Your task to perform on an android device: turn off smart reply in the gmail app Image 0: 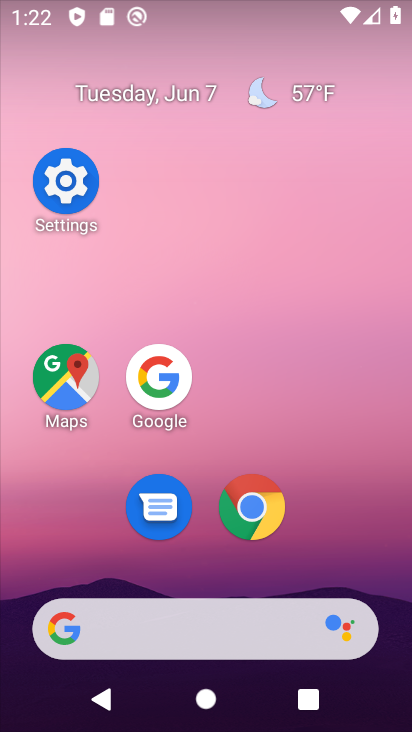
Step 0: drag from (326, 399) to (309, 92)
Your task to perform on an android device: turn off smart reply in the gmail app Image 1: 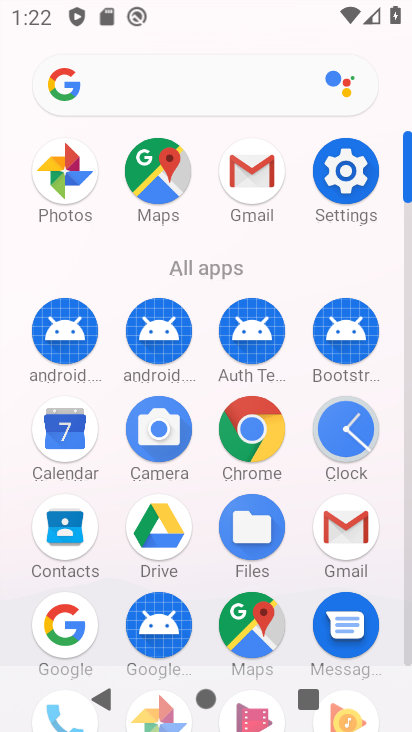
Step 1: drag from (257, 165) to (226, 389)
Your task to perform on an android device: turn off smart reply in the gmail app Image 2: 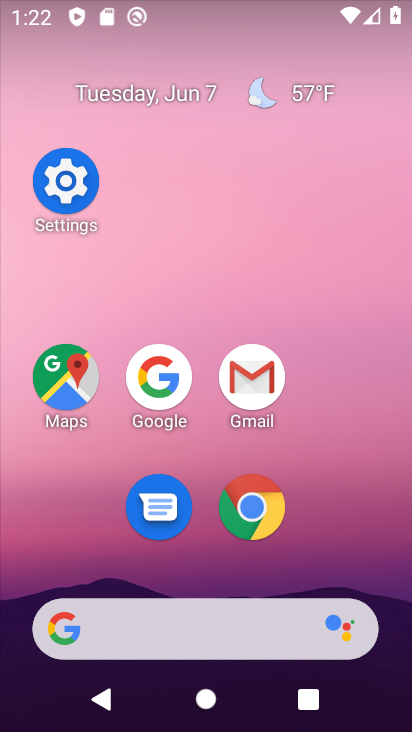
Step 2: click (240, 362)
Your task to perform on an android device: turn off smart reply in the gmail app Image 3: 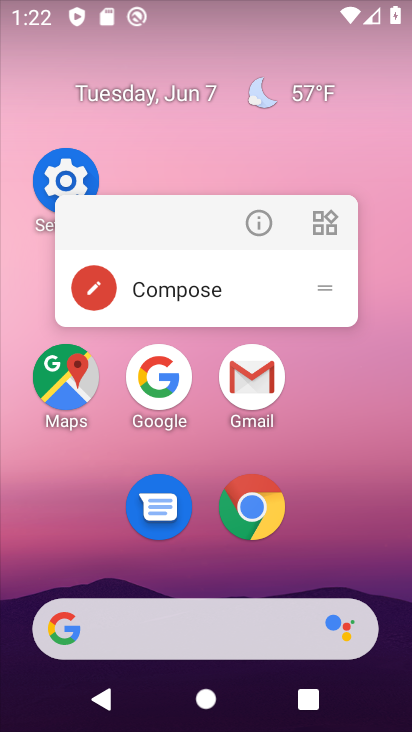
Step 3: click (243, 368)
Your task to perform on an android device: turn off smart reply in the gmail app Image 4: 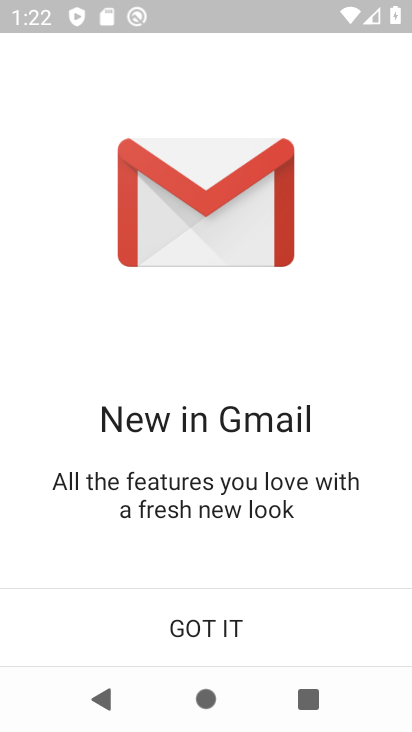
Step 4: click (218, 591)
Your task to perform on an android device: turn off smart reply in the gmail app Image 5: 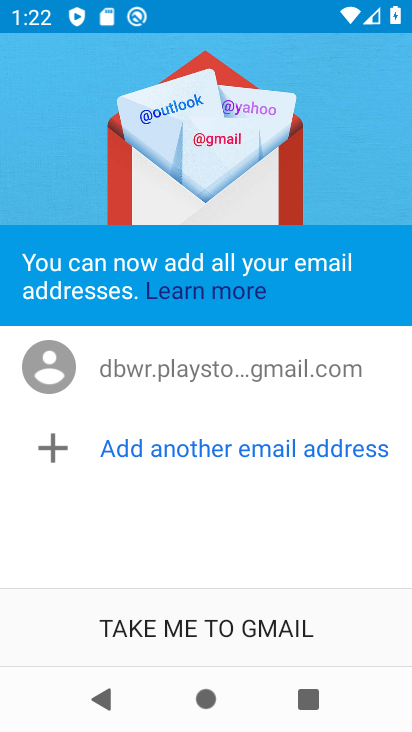
Step 5: click (214, 632)
Your task to perform on an android device: turn off smart reply in the gmail app Image 6: 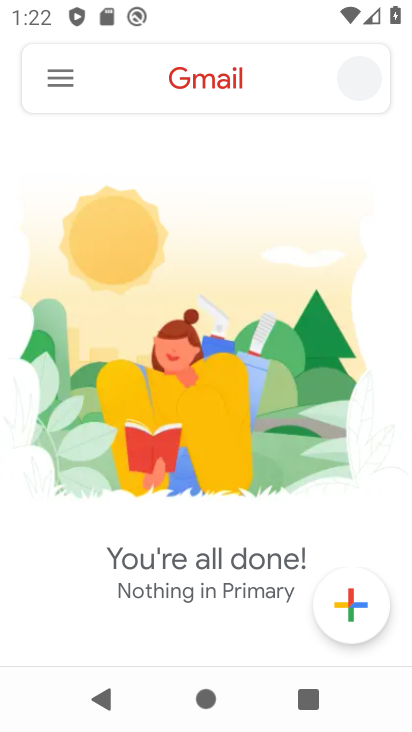
Step 6: click (61, 84)
Your task to perform on an android device: turn off smart reply in the gmail app Image 7: 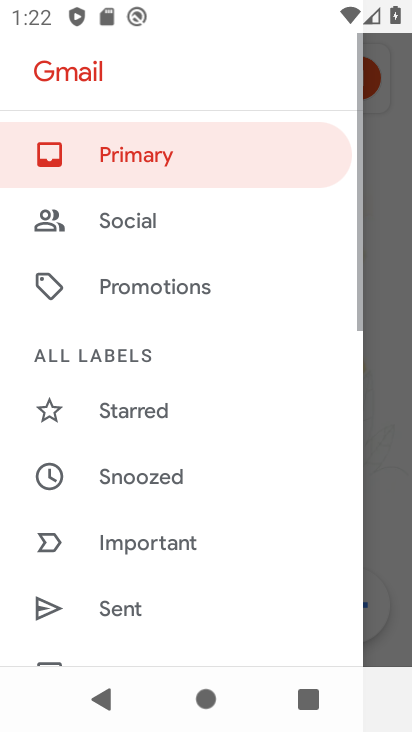
Step 7: click (147, 360)
Your task to perform on an android device: turn off smart reply in the gmail app Image 8: 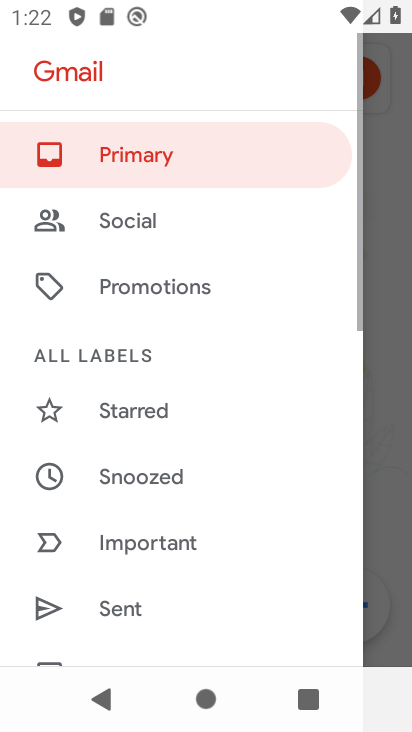
Step 8: drag from (222, 221) to (212, 177)
Your task to perform on an android device: turn off smart reply in the gmail app Image 9: 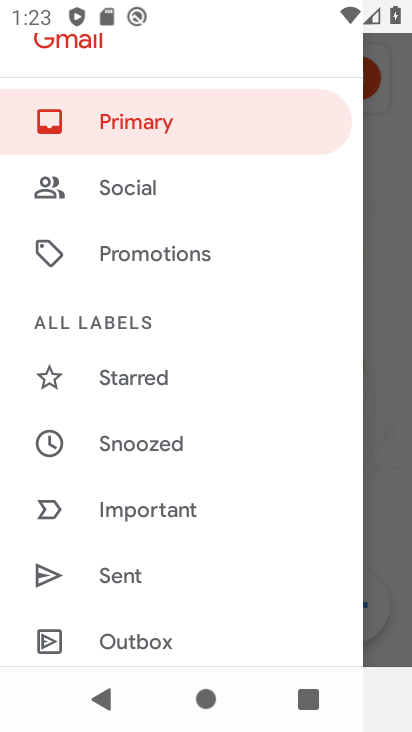
Step 9: drag from (209, 552) to (242, 170)
Your task to perform on an android device: turn off smart reply in the gmail app Image 10: 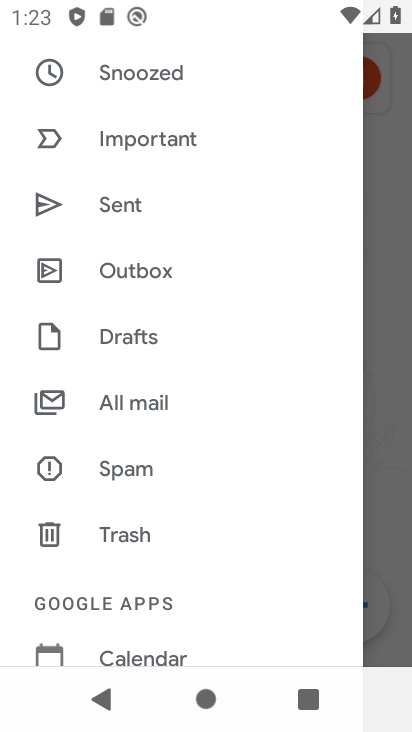
Step 10: drag from (177, 557) to (219, 203)
Your task to perform on an android device: turn off smart reply in the gmail app Image 11: 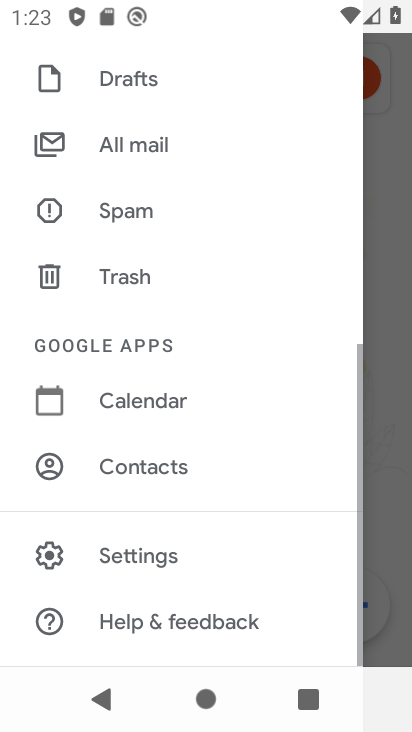
Step 11: click (207, 568)
Your task to perform on an android device: turn off smart reply in the gmail app Image 12: 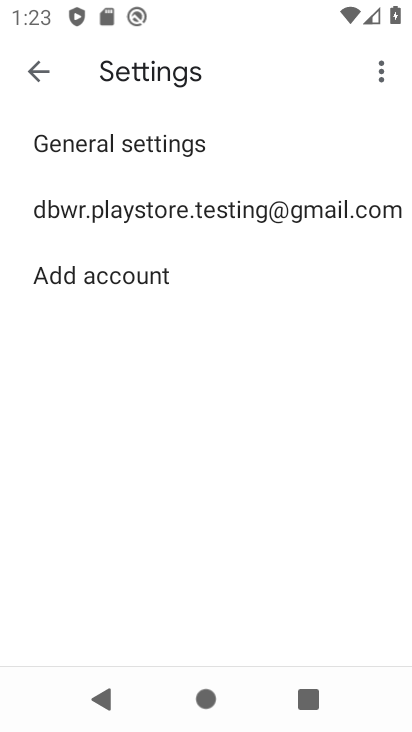
Step 12: click (198, 213)
Your task to perform on an android device: turn off smart reply in the gmail app Image 13: 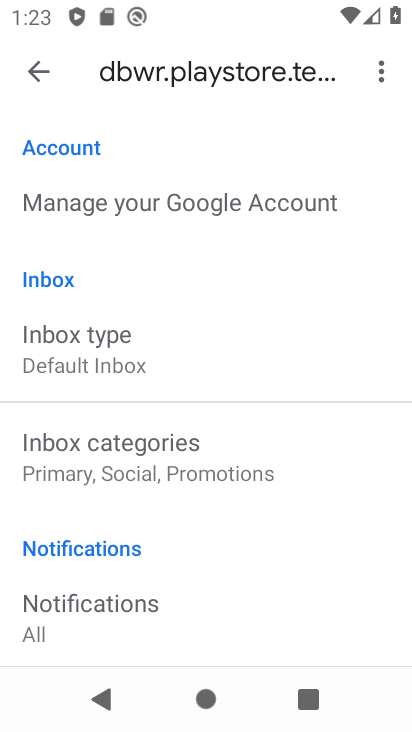
Step 13: drag from (189, 455) to (240, 168)
Your task to perform on an android device: turn off smart reply in the gmail app Image 14: 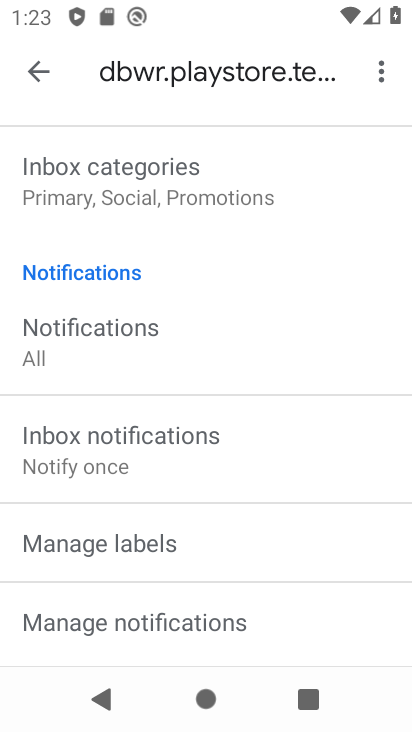
Step 14: drag from (198, 502) to (211, 229)
Your task to perform on an android device: turn off smart reply in the gmail app Image 15: 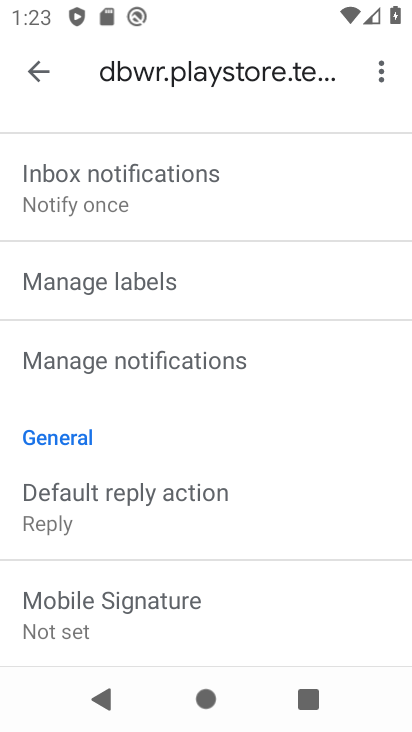
Step 15: drag from (209, 560) to (263, 272)
Your task to perform on an android device: turn off smart reply in the gmail app Image 16: 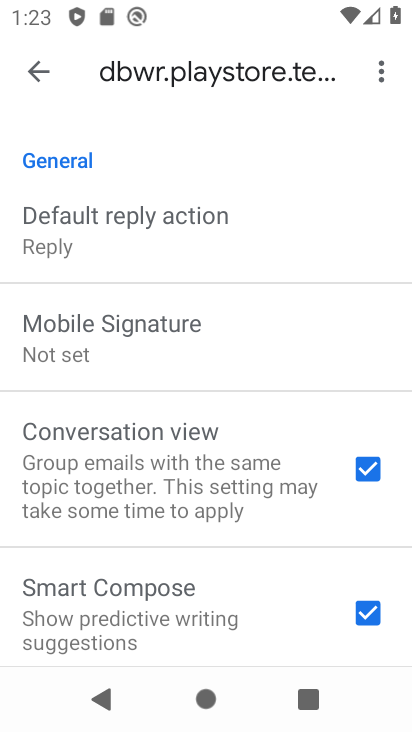
Step 16: drag from (256, 474) to (303, 219)
Your task to perform on an android device: turn off smart reply in the gmail app Image 17: 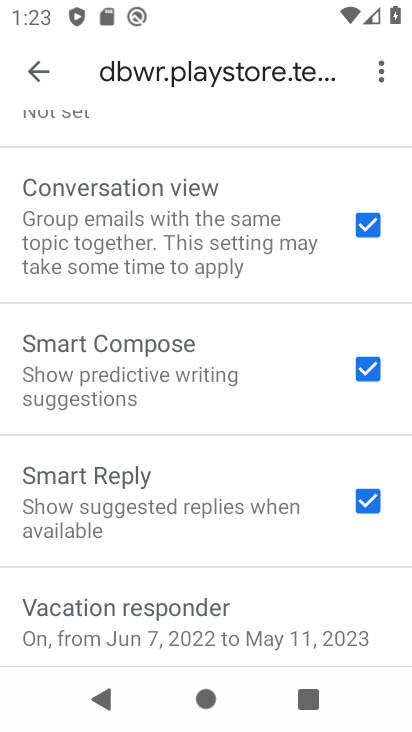
Step 17: drag from (223, 473) to (237, 226)
Your task to perform on an android device: turn off smart reply in the gmail app Image 18: 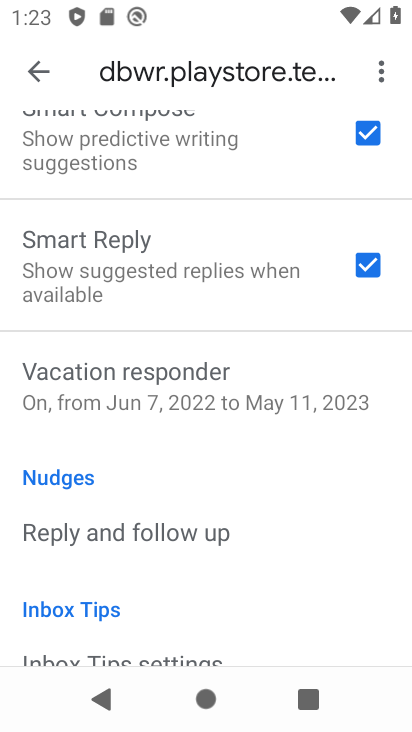
Step 18: click (360, 274)
Your task to perform on an android device: turn off smart reply in the gmail app Image 19: 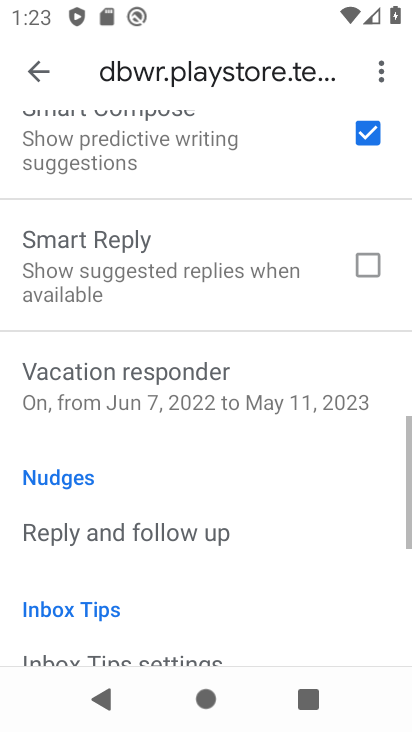
Step 19: task complete